Your task to perform on an android device: What's on my calendar tomorrow? Image 0: 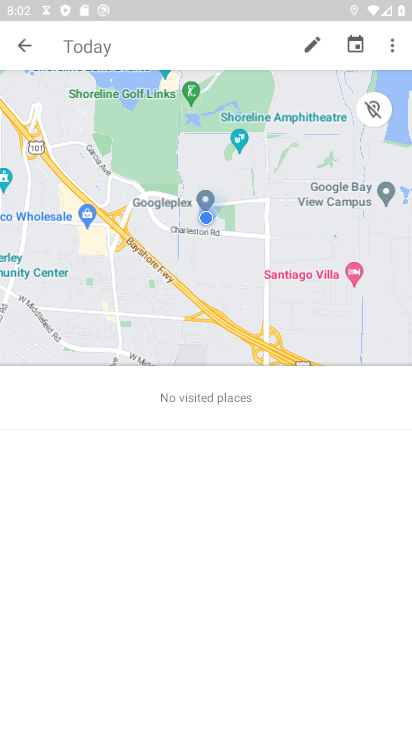
Step 0: press back button
Your task to perform on an android device: What's on my calendar tomorrow? Image 1: 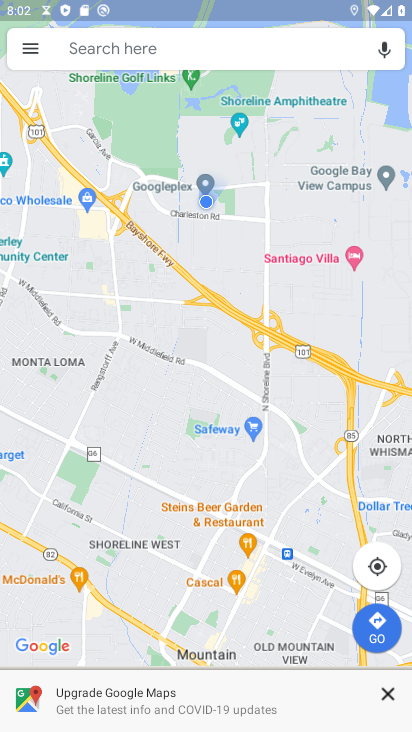
Step 1: press back button
Your task to perform on an android device: What's on my calendar tomorrow? Image 2: 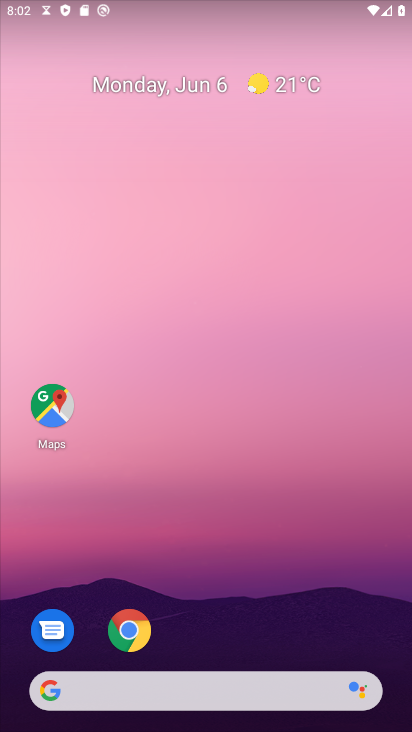
Step 2: drag from (288, 625) to (266, 53)
Your task to perform on an android device: What's on my calendar tomorrow? Image 3: 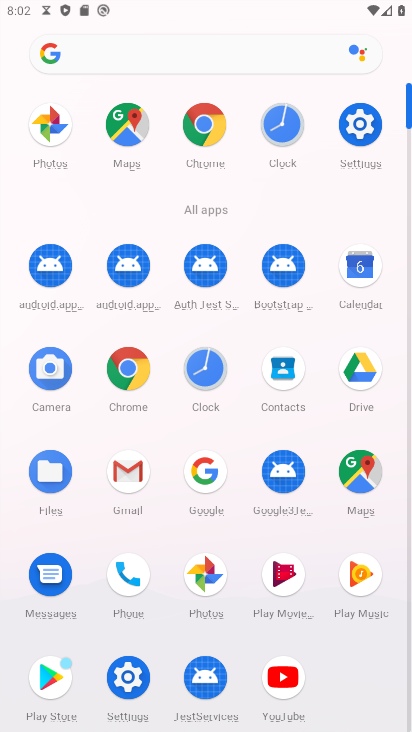
Step 3: click (361, 262)
Your task to perform on an android device: What's on my calendar tomorrow? Image 4: 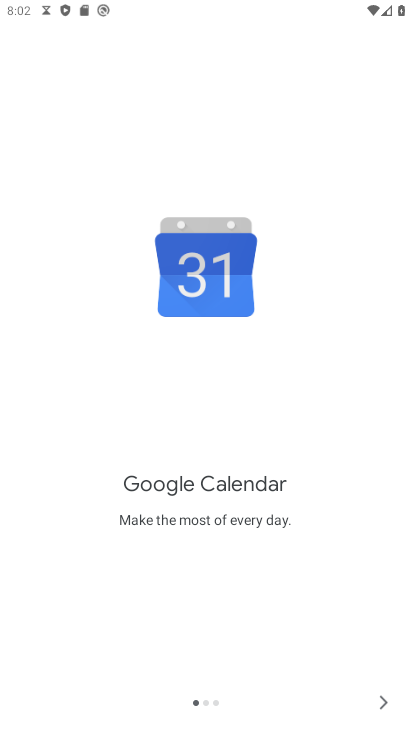
Step 4: click (385, 700)
Your task to perform on an android device: What's on my calendar tomorrow? Image 5: 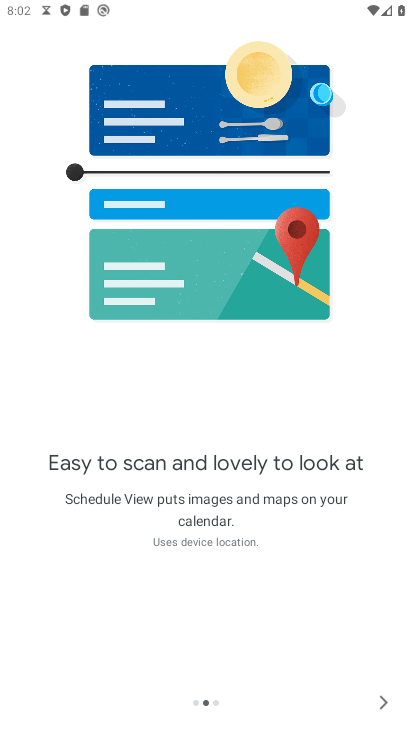
Step 5: click (385, 700)
Your task to perform on an android device: What's on my calendar tomorrow? Image 6: 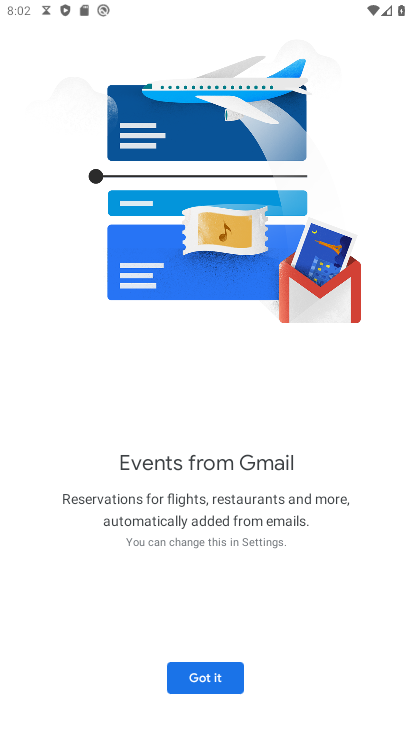
Step 6: click (198, 677)
Your task to perform on an android device: What's on my calendar tomorrow? Image 7: 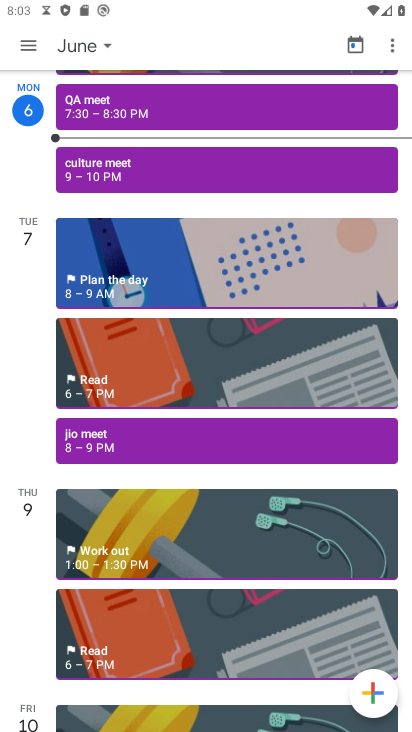
Step 7: click (108, 45)
Your task to perform on an android device: What's on my calendar tomorrow? Image 8: 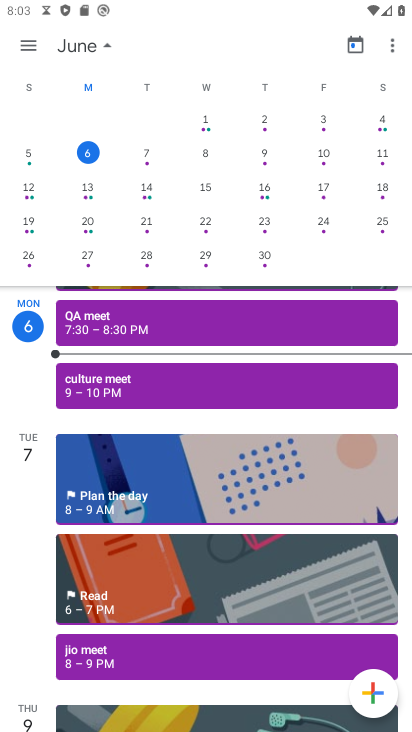
Step 8: click (147, 161)
Your task to perform on an android device: What's on my calendar tomorrow? Image 9: 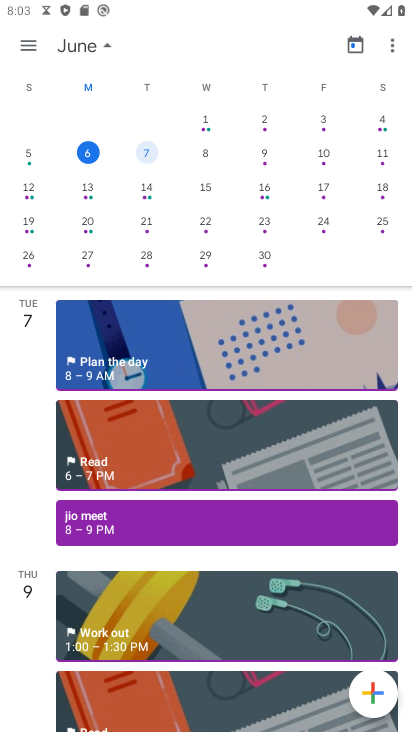
Step 9: click (38, 52)
Your task to perform on an android device: What's on my calendar tomorrow? Image 10: 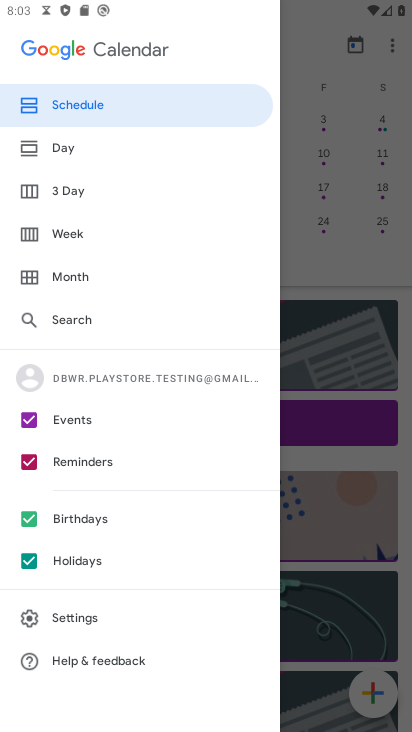
Step 10: click (106, 113)
Your task to perform on an android device: What's on my calendar tomorrow? Image 11: 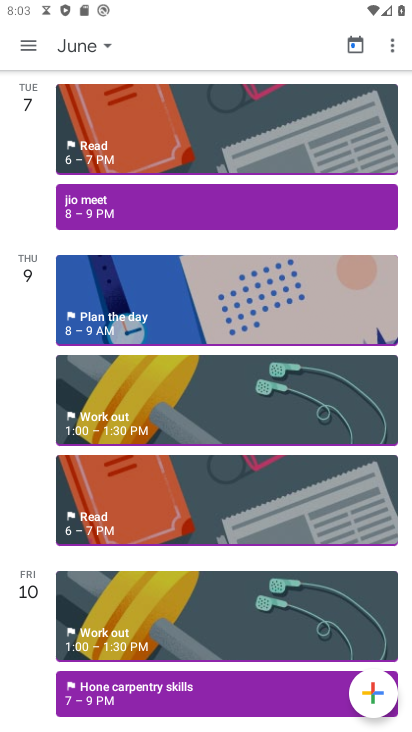
Step 11: task complete